Your task to perform on an android device: Open network settings Image 0: 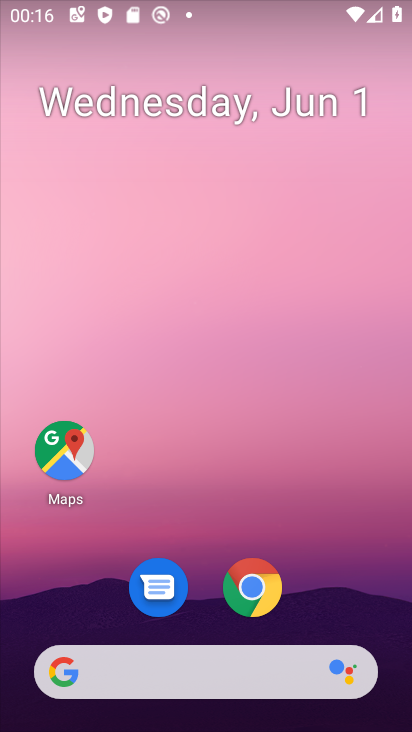
Step 0: drag from (336, 618) to (340, 16)
Your task to perform on an android device: Open network settings Image 1: 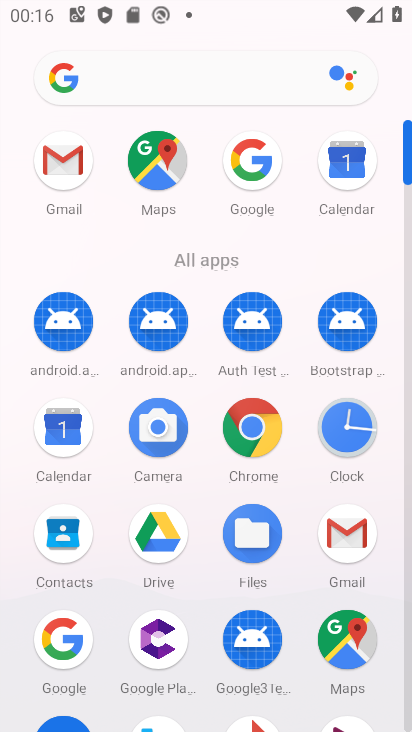
Step 1: drag from (203, 599) to (218, 10)
Your task to perform on an android device: Open network settings Image 2: 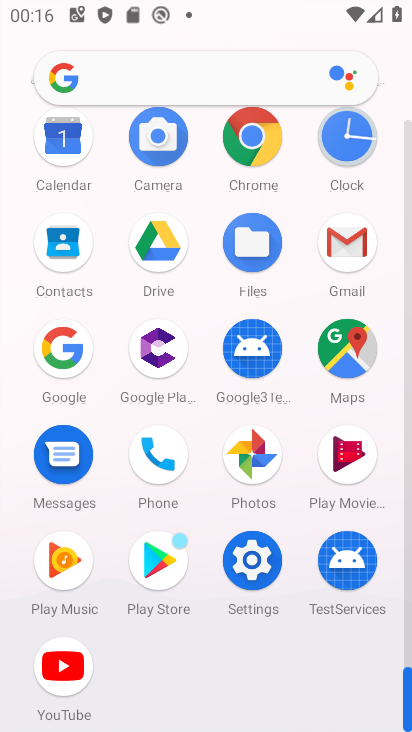
Step 2: click (248, 562)
Your task to perform on an android device: Open network settings Image 3: 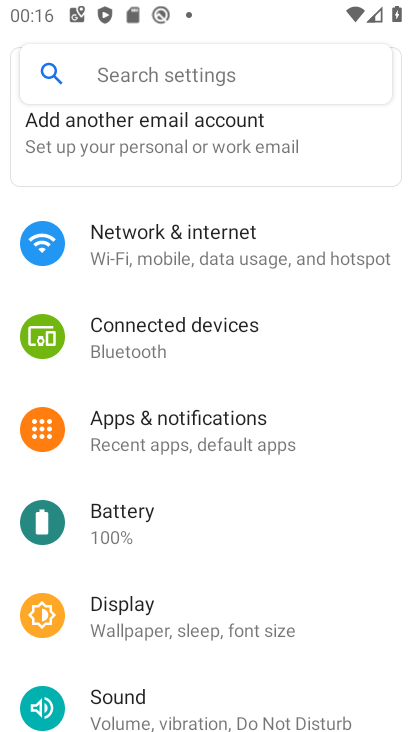
Step 3: click (163, 271)
Your task to perform on an android device: Open network settings Image 4: 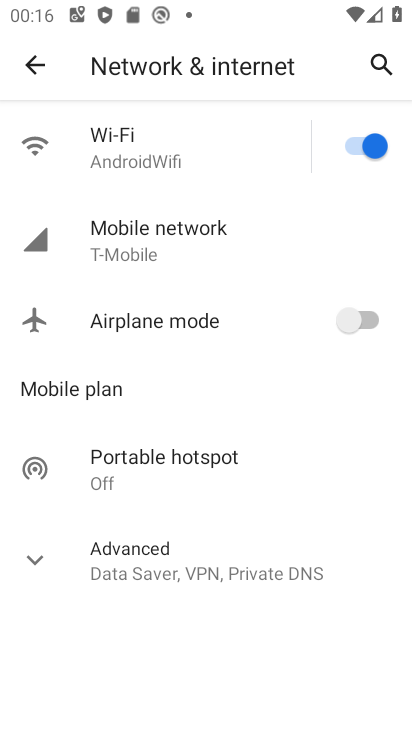
Step 4: click (164, 260)
Your task to perform on an android device: Open network settings Image 5: 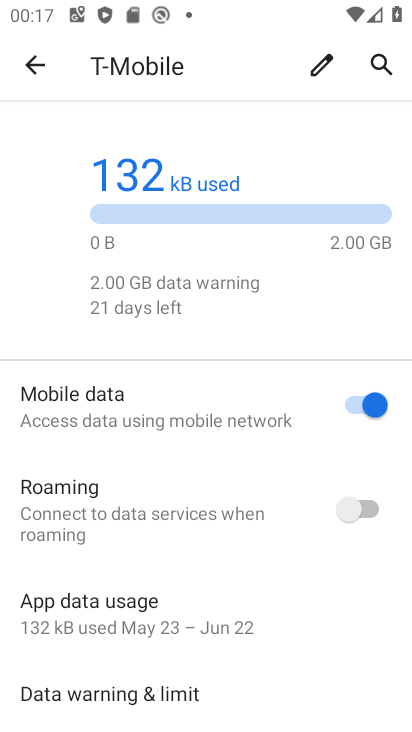
Step 5: task complete